Your task to perform on an android device: toggle improve location accuracy Image 0: 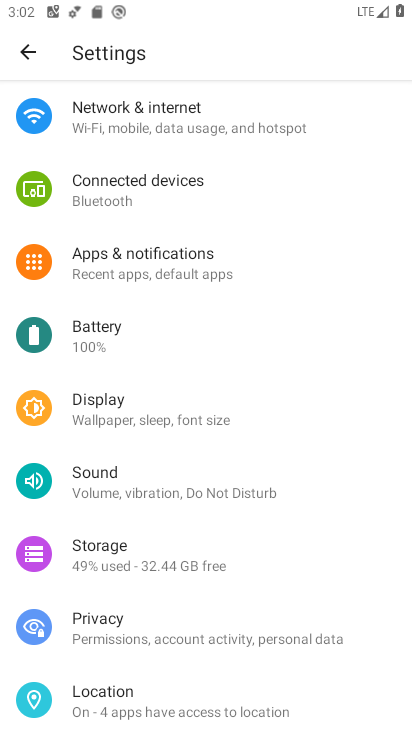
Step 0: click (178, 696)
Your task to perform on an android device: toggle improve location accuracy Image 1: 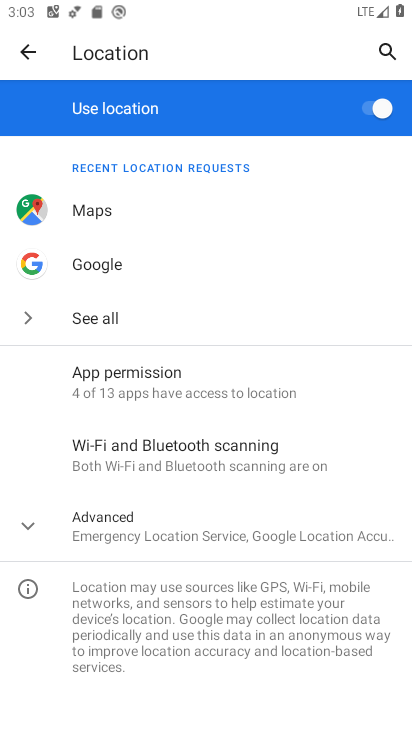
Step 1: click (27, 522)
Your task to perform on an android device: toggle improve location accuracy Image 2: 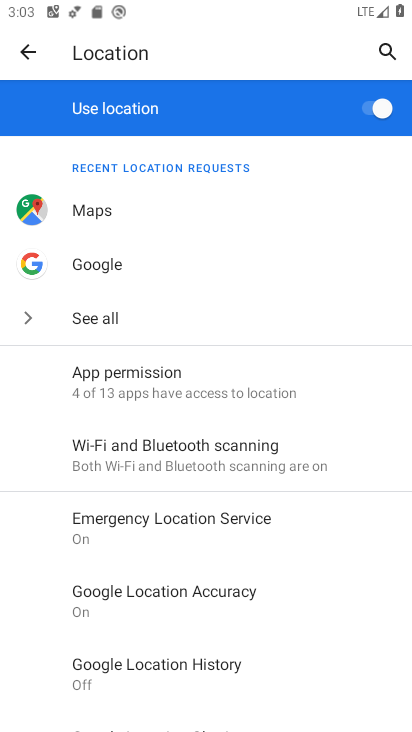
Step 2: drag from (262, 569) to (282, 326)
Your task to perform on an android device: toggle improve location accuracy Image 3: 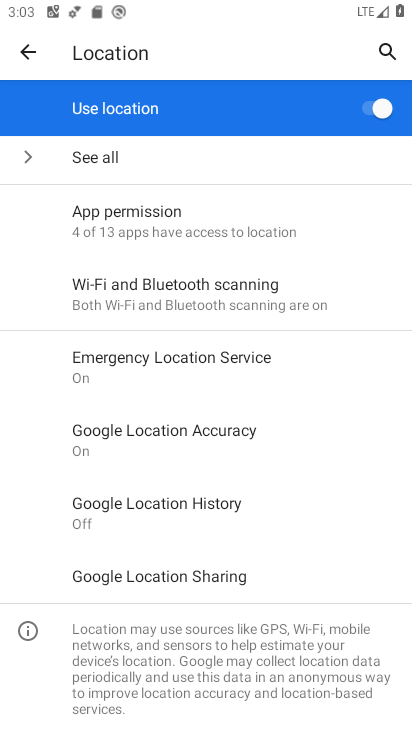
Step 3: click (234, 431)
Your task to perform on an android device: toggle improve location accuracy Image 4: 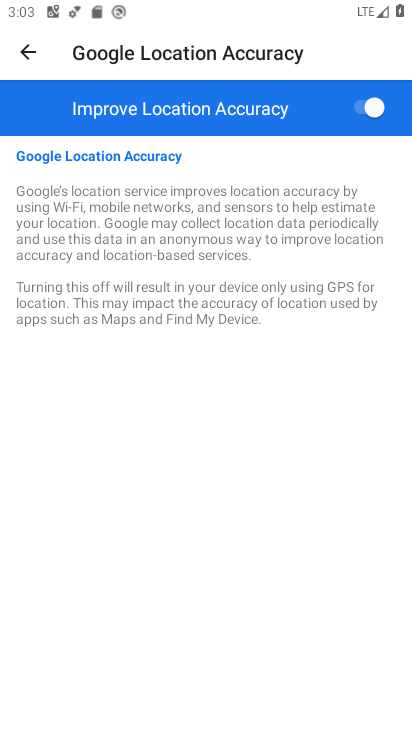
Step 4: click (360, 102)
Your task to perform on an android device: toggle improve location accuracy Image 5: 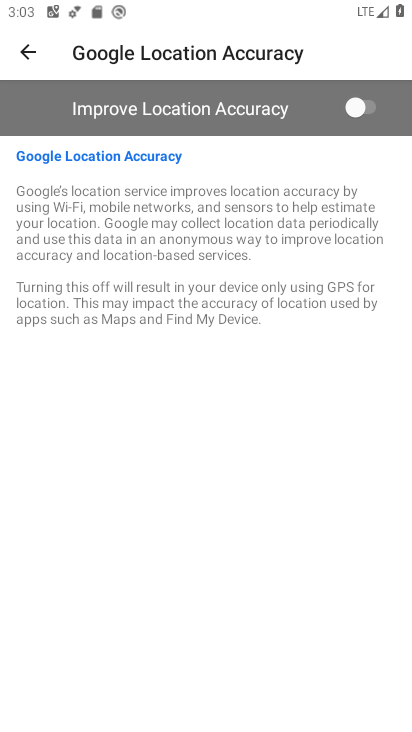
Step 5: task complete